Your task to perform on an android device: Open the stopwatch Image 0: 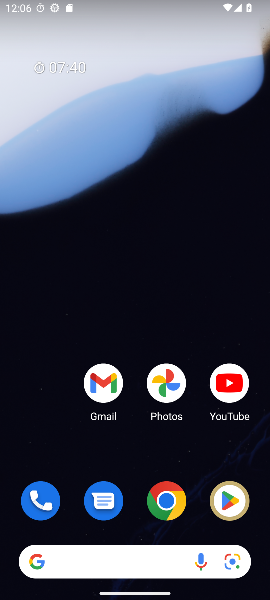
Step 0: drag from (200, 351) to (146, 73)
Your task to perform on an android device: Open the stopwatch Image 1: 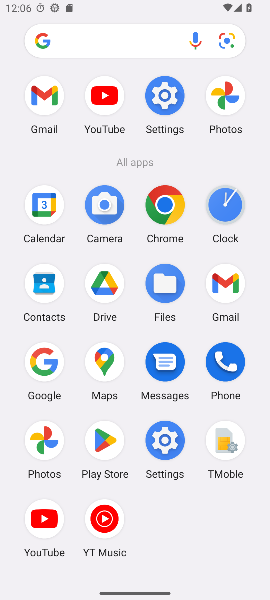
Step 1: click (226, 216)
Your task to perform on an android device: Open the stopwatch Image 2: 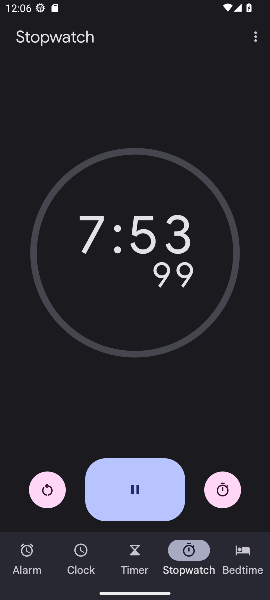
Step 2: task complete